Your task to perform on an android device: open the mobile data screen to see how much data has been used Image 0: 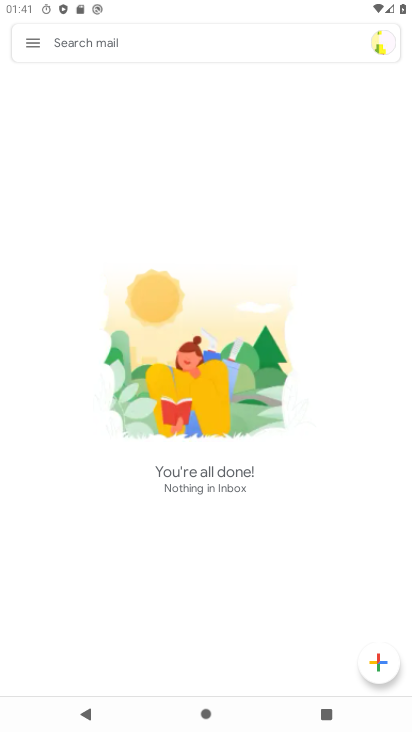
Step 0: press home button
Your task to perform on an android device: open the mobile data screen to see how much data has been used Image 1: 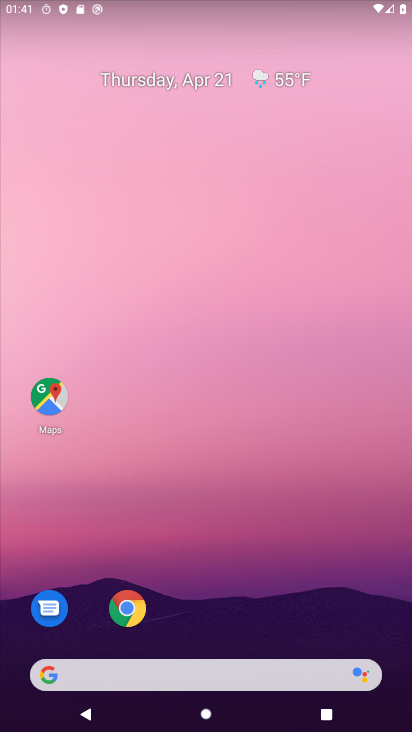
Step 1: drag from (272, 582) to (256, 121)
Your task to perform on an android device: open the mobile data screen to see how much data has been used Image 2: 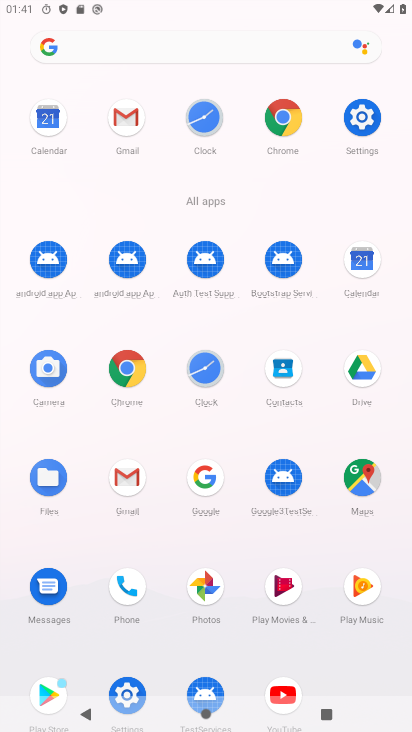
Step 2: click (368, 121)
Your task to perform on an android device: open the mobile data screen to see how much data has been used Image 3: 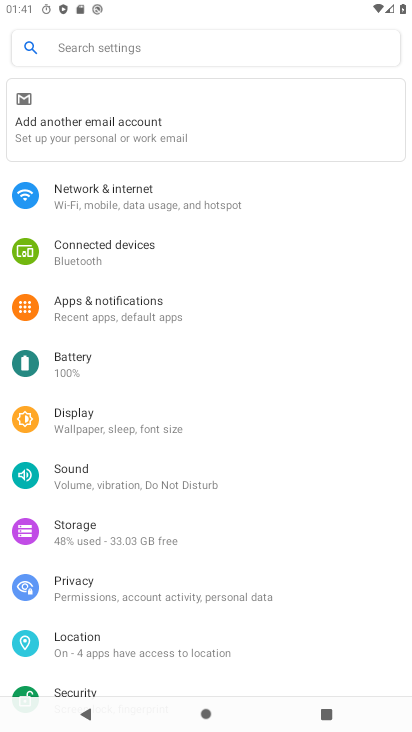
Step 3: click (96, 196)
Your task to perform on an android device: open the mobile data screen to see how much data has been used Image 4: 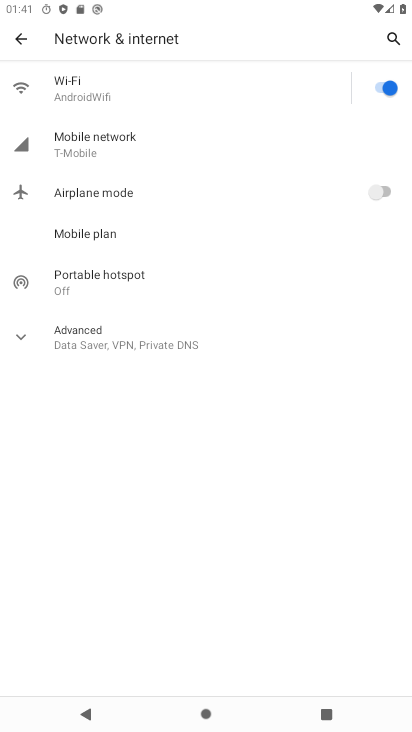
Step 4: click (97, 153)
Your task to perform on an android device: open the mobile data screen to see how much data has been used Image 5: 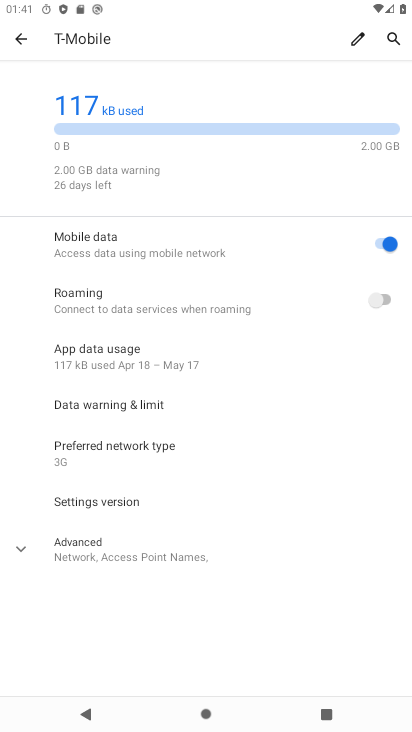
Step 5: click (116, 368)
Your task to perform on an android device: open the mobile data screen to see how much data has been used Image 6: 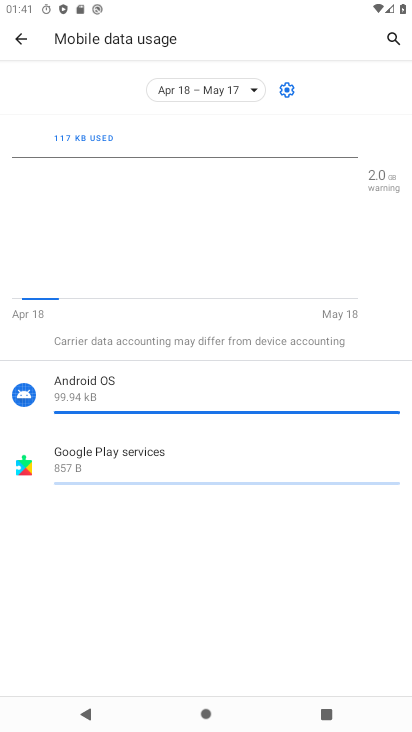
Step 6: task complete